Your task to perform on an android device: toggle sleep mode Image 0: 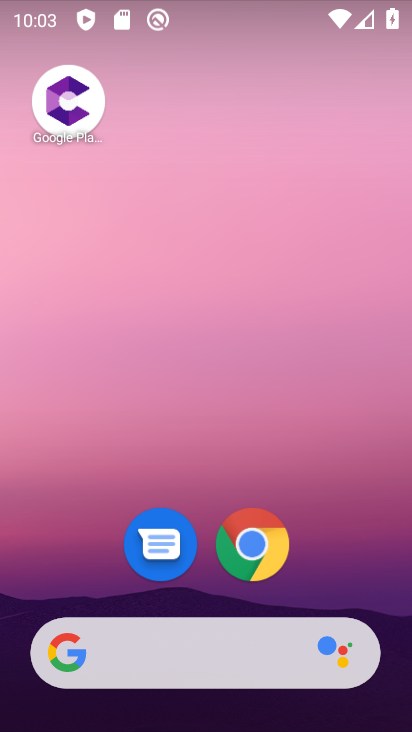
Step 0: drag from (114, 640) to (190, 283)
Your task to perform on an android device: toggle sleep mode Image 1: 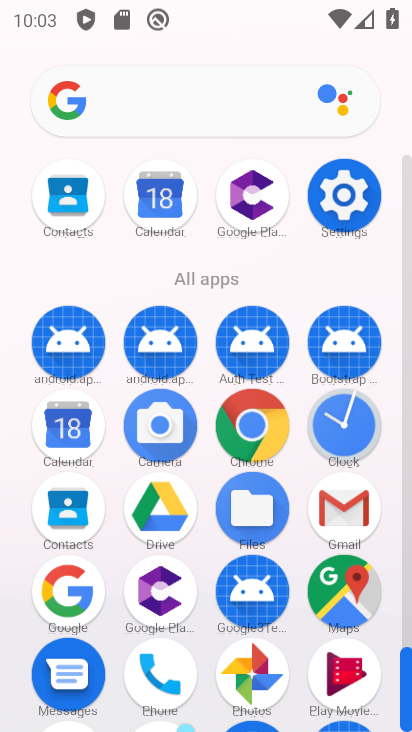
Step 1: click (338, 209)
Your task to perform on an android device: toggle sleep mode Image 2: 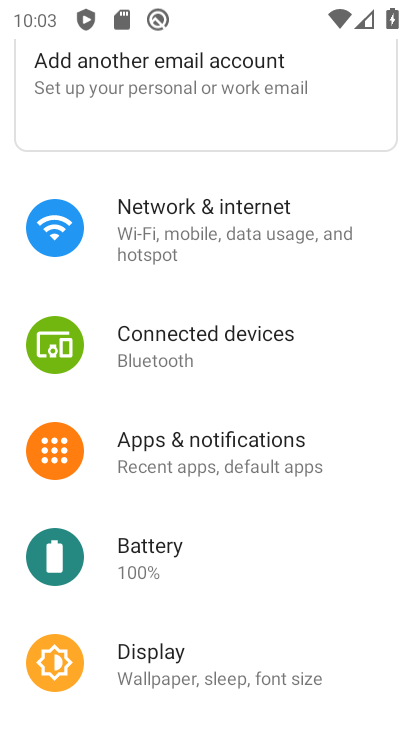
Step 2: click (206, 682)
Your task to perform on an android device: toggle sleep mode Image 3: 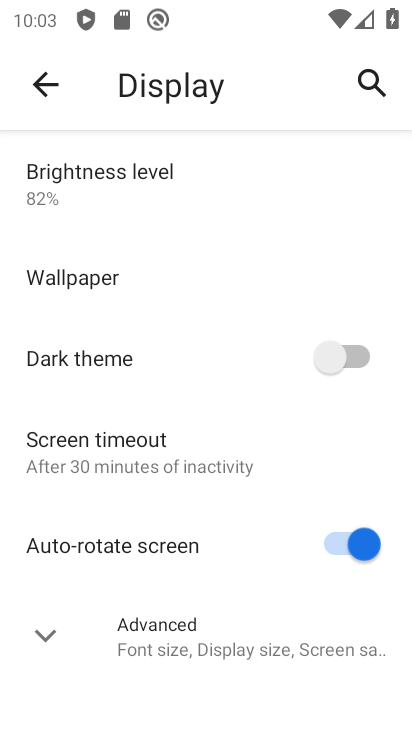
Step 3: task complete